Your task to perform on an android device: Open eBay Image 0: 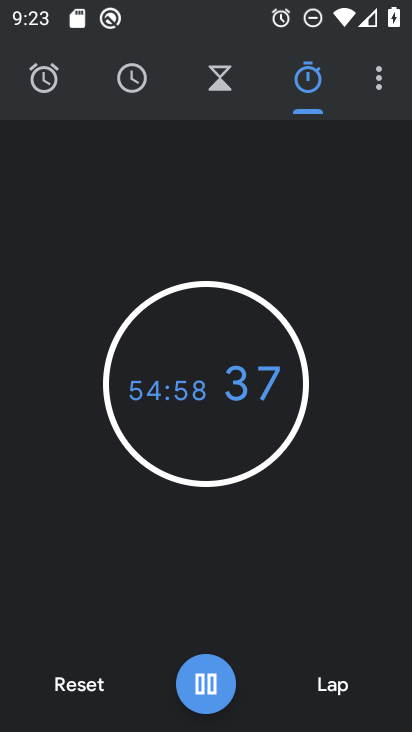
Step 0: press home button
Your task to perform on an android device: Open eBay Image 1: 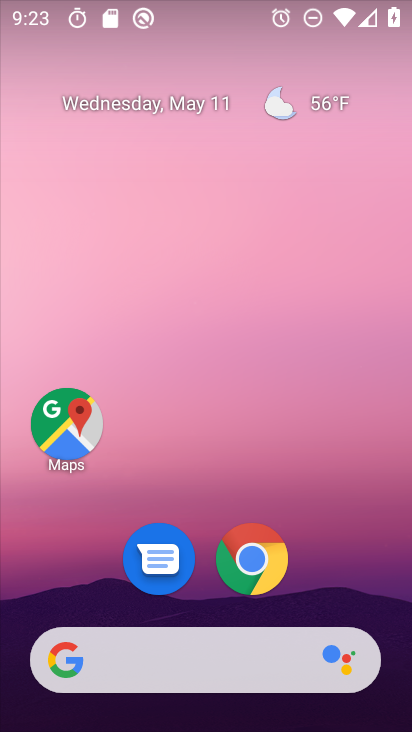
Step 1: click (255, 567)
Your task to perform on an android device: Open eBay Image 2: 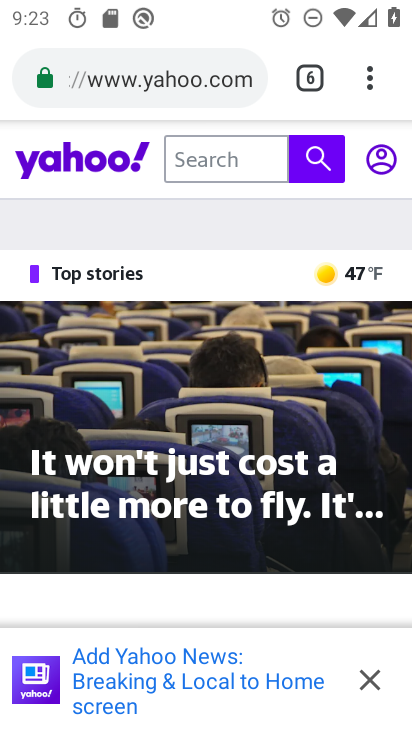
Step 2: click (315, 78)
Your task to perform on an android device: Open eBay Image 3: 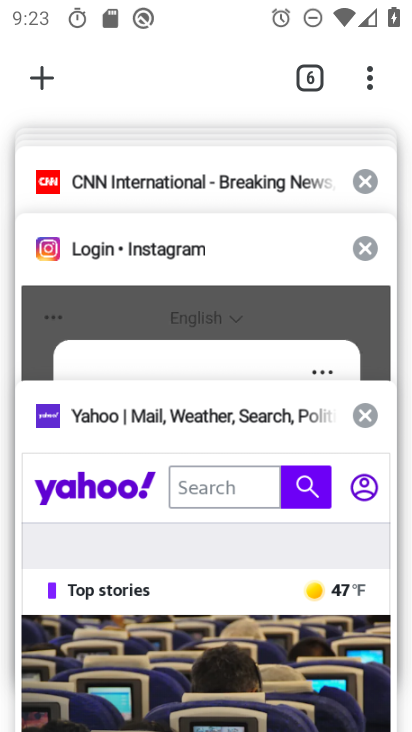
Step 3: drag from (235, 209) to (238, 344)
Your task to perform on an android device: Open eBay Image 4: 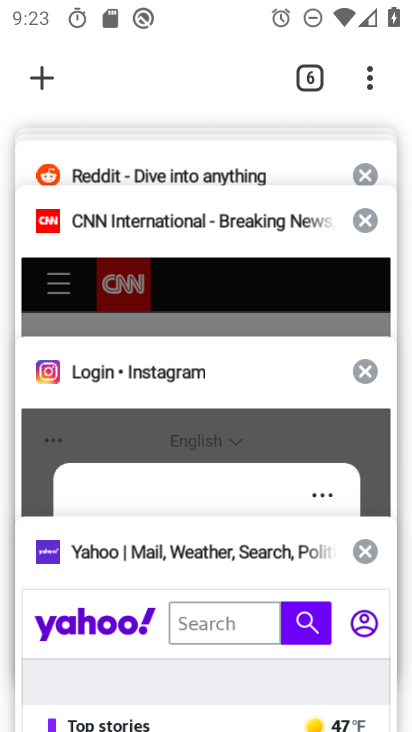
Step 4: drag from (219, 216) to (239, 405)
Your task to perform on an android device: Open eBay Image 5: 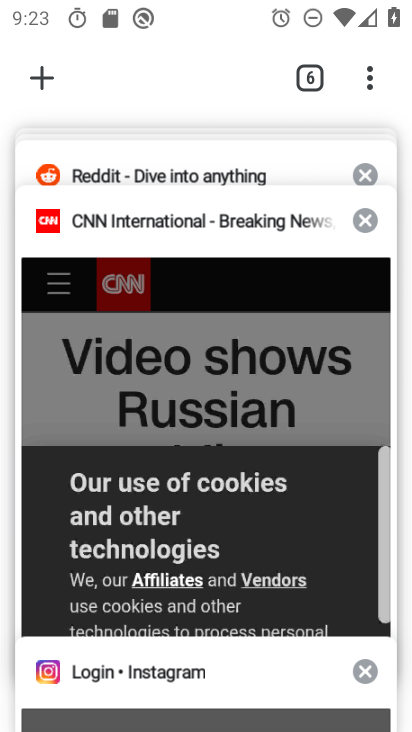
Step 5: drag from (221, 152) to (261, 386)
Your task to perform on an android device: Open eBay Image 6: 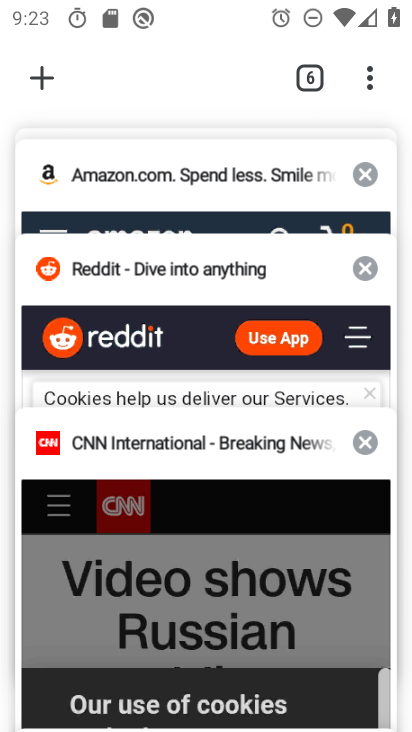
Step 6: drag from (193, 138) to (210, 378)
Your task to perform on an android device: Open eBay Image 7: 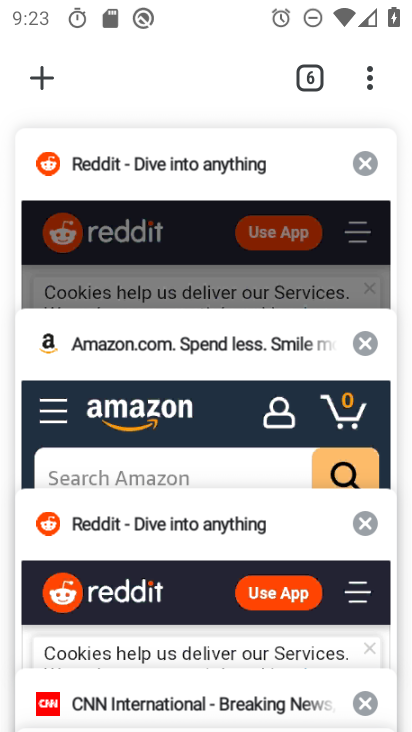
Step 7: click (43, 74)
Your task to perform on an android device: Open eBay Image 8: 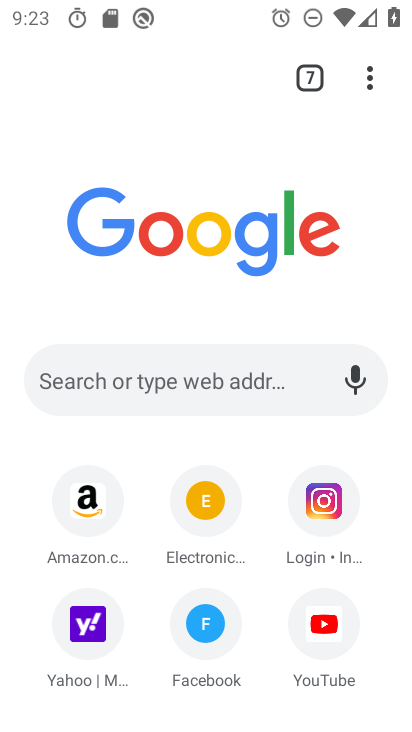
Step 8: click (196, 393)
Your task to perform on an android device: Open eBay Image 9: 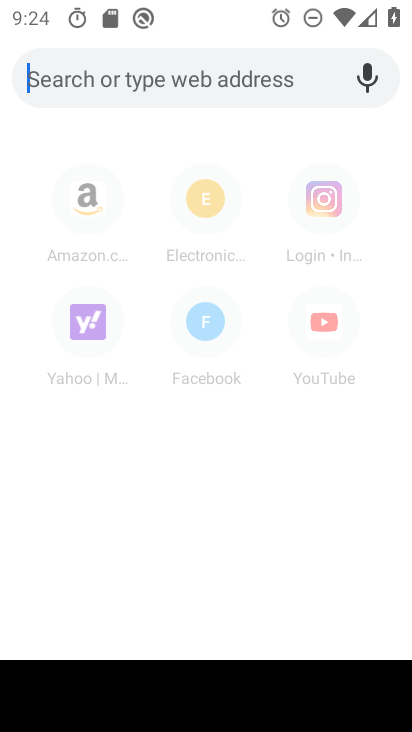
Step 9: type "ebay"
Your task to perform on an android device: Open eBay Image 10: 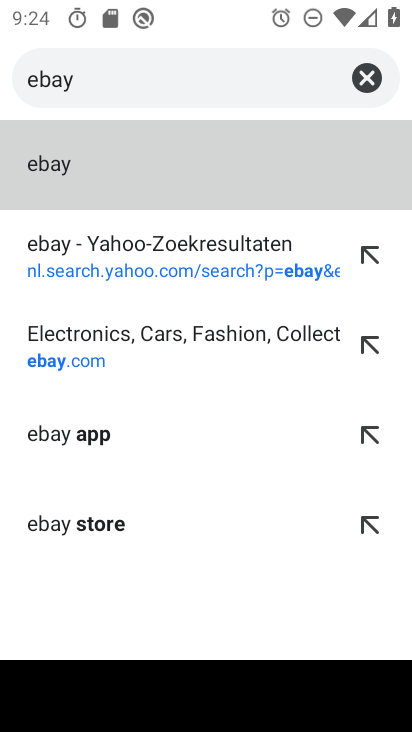
Step 10: click (133, 355)
Your task to perform on an android device: Open eBay Image 11: 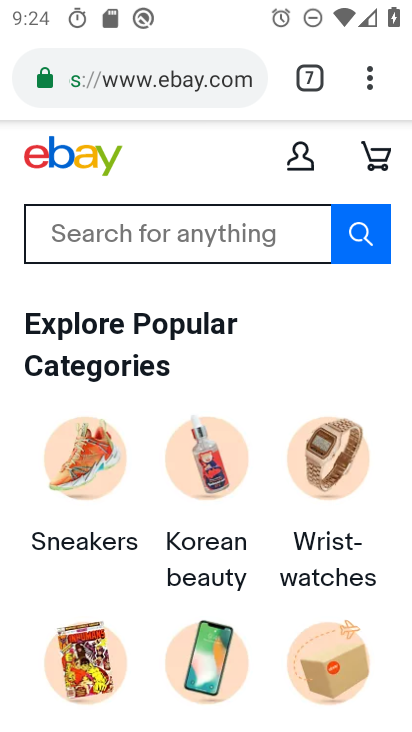
Step 11: task complete